Your task to perform on an android device: What is the news today? Image 0: 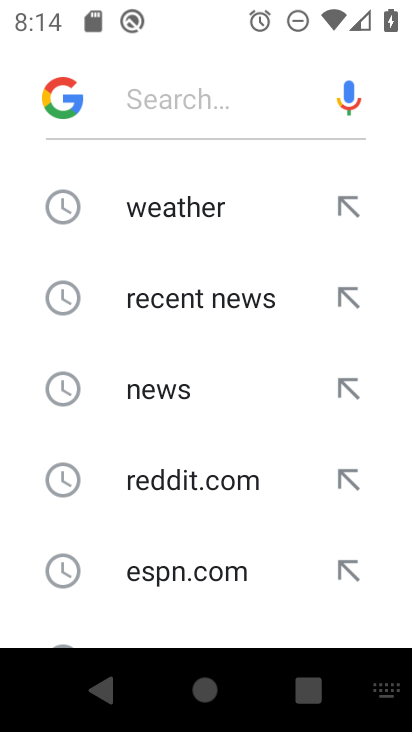
Step 0: click (244, 380)
Your task to perform on an android device: What is the news today? Image 1: 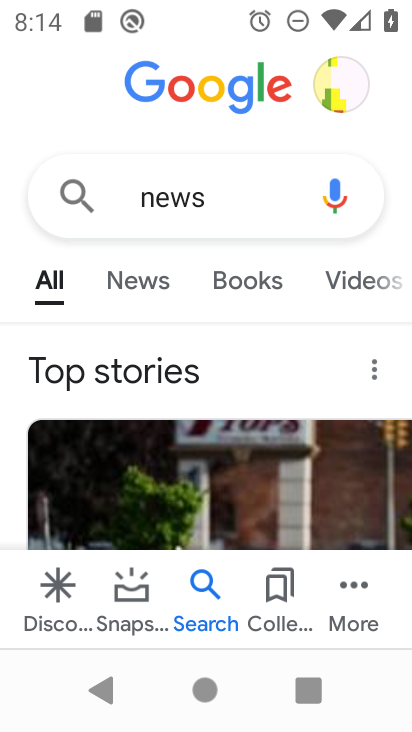
Step 1: click (122, 298)
Your task to perform on an android device: What is the news today? Image 2: 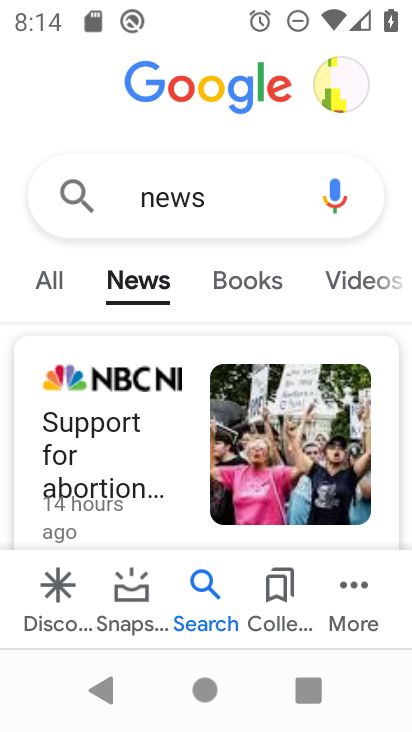
Step 2: task complete